Your task to perform on an android device: toggle airplane mode Image 0: 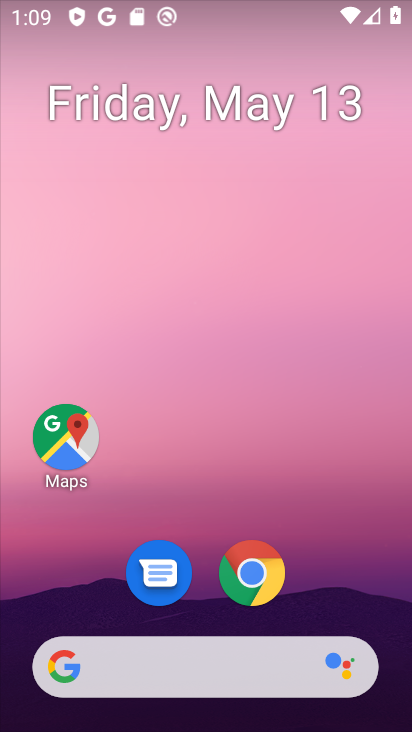
Step 0: drag from (183, 621) to (257, 136)
Your task to perform on an android device: toggle airplane mode Image 1: 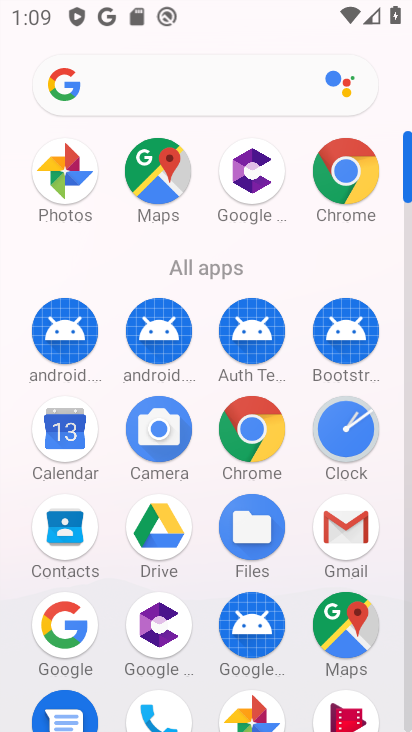
Step 1: drag from (217, 546) to (256, 179)
Your task to perform on an android device: toggle airplane mode Image 2: 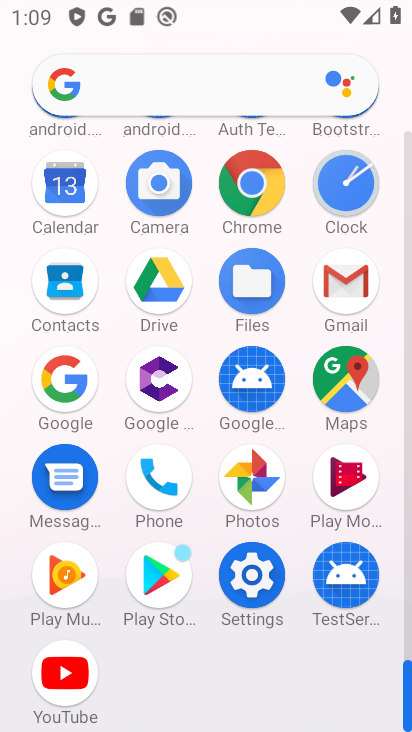
Step 2: click (250, 586)
Your task to perform on an android device: toggle airplane mode Image 3: 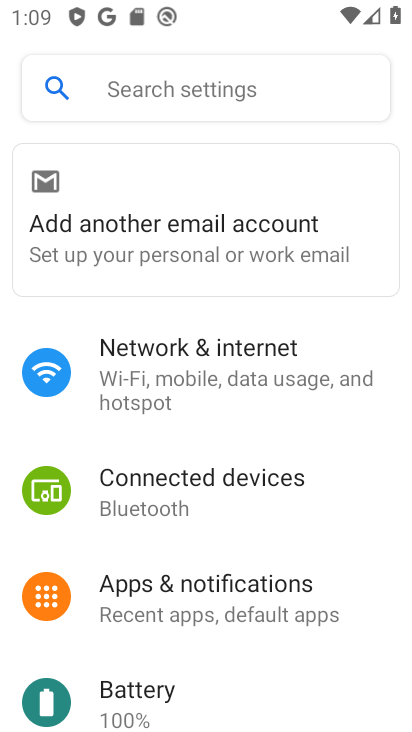
Step 3: click (202, 372)
Your task to perform on an android device: toggle airplane mode Image 4: 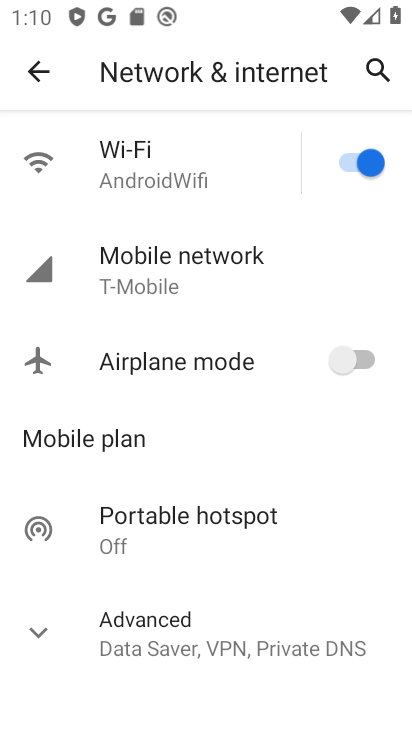
Step 4: click (355, 162)
Your task to perform on an android device: toggle airplane mode Image 5: 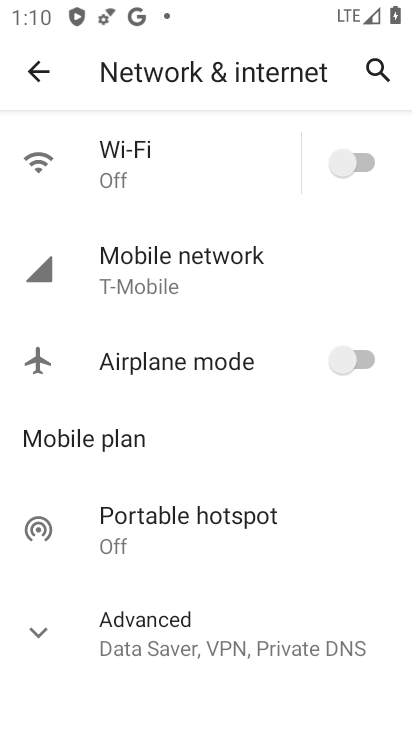
Step 5: task complete